Your task to perform on an android device: toggle data saver in the chrome app Image 0: 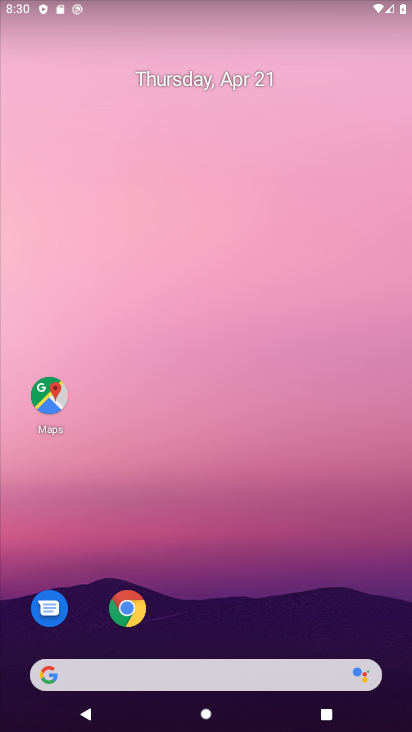
Step 0: click (143, 605)
Your task to perform on an android device: toggle data saver in the chrome app Image 1: 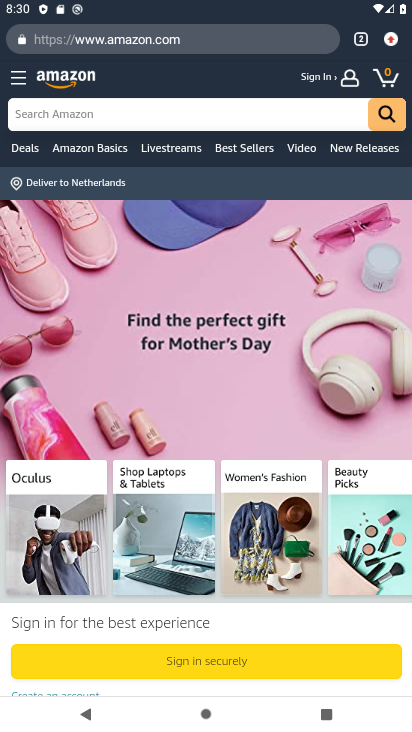
Step 1: click (386, 54)
Your task to perform on an android device: toggle data saver in the chrome app Image 2: 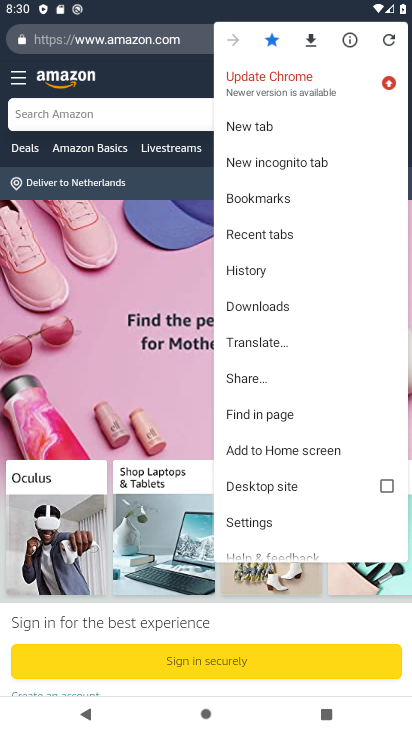
Step 2: click (283, 520)
Your task to perform on an android device: toggle data saver in the chrome app Image 3: 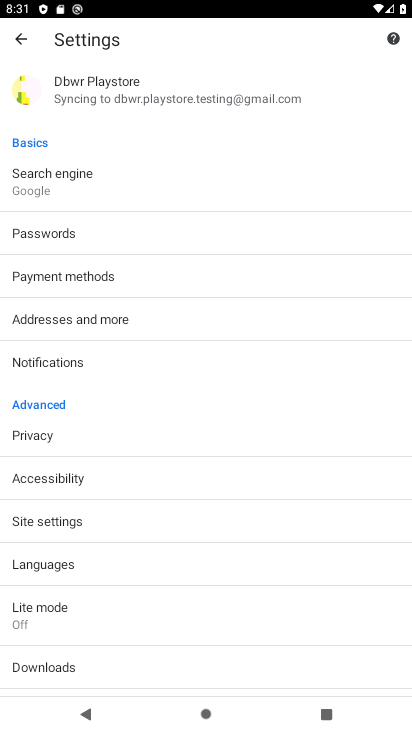
Step 3: click (182, 632)
Your task to perform on an android device: toggle data saver in the chrome app Image 4: 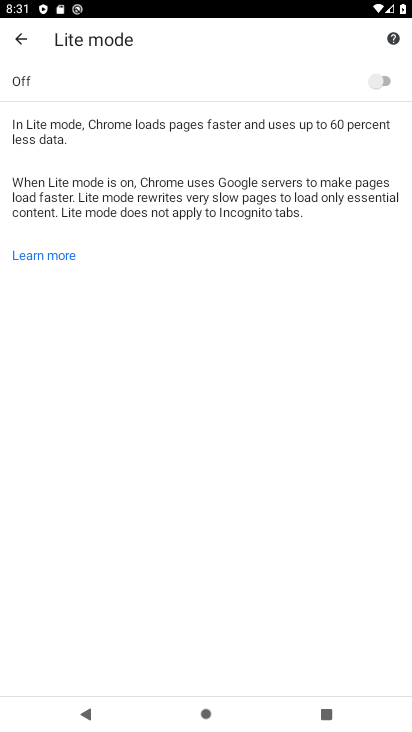
Step 4: click (381, 81)
Your task to perform on an android device: toggle data saver in the chrome app Image 5: 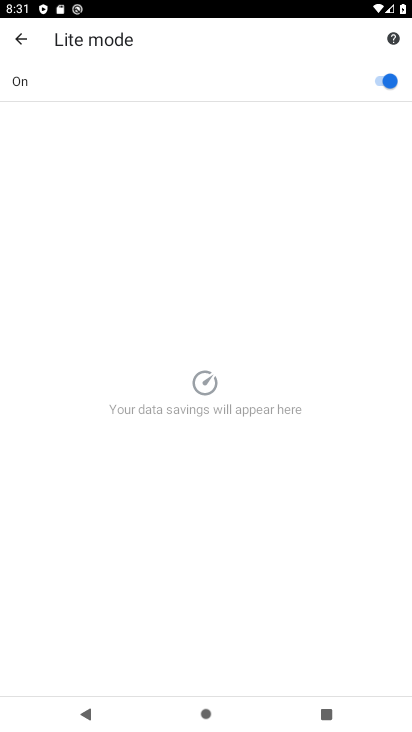
Step 5: task complete